Your task to perform on an android device: Open Yahoo.com Image 0: 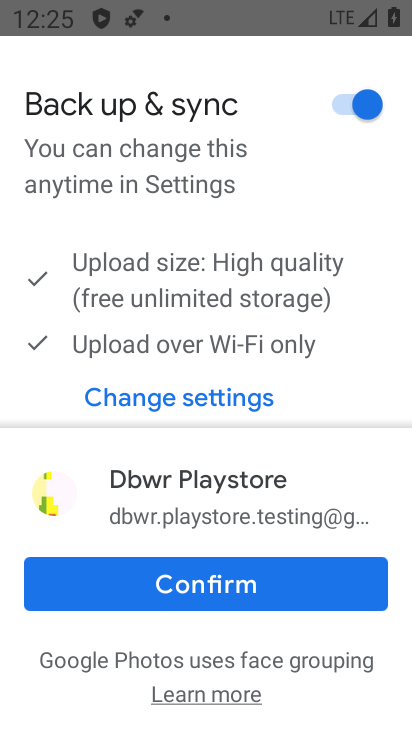
Step 0: press home button
Your task to perform on an android device: Open Yahoo.com Image 1: 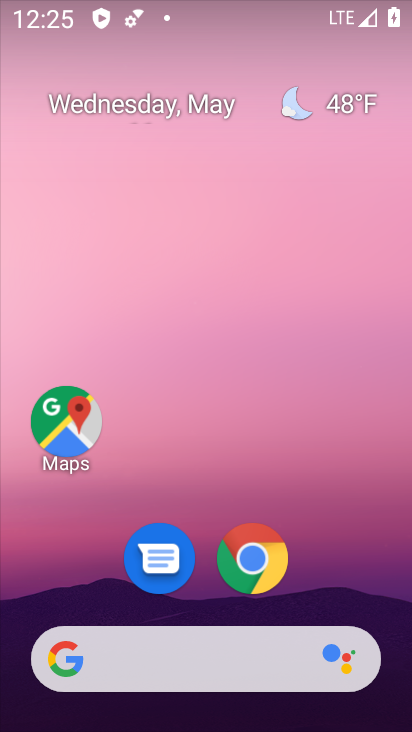
Step 1: press home button
Your task to perform on an android device: Open Yahoo.com Image 2: 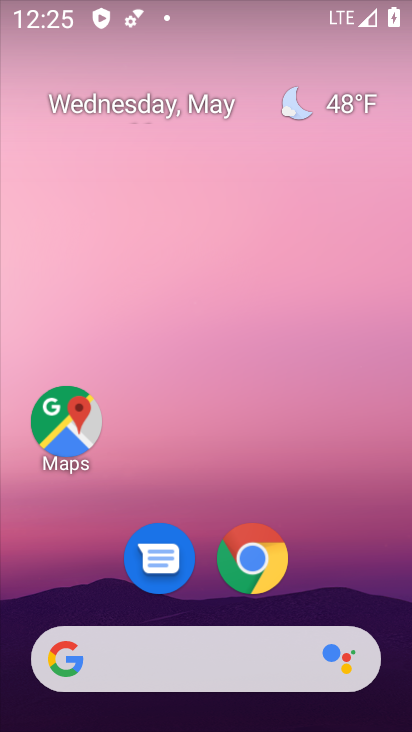
Step 2: click (279, 574)
Your task to perform on an android device: Open Yahoo.com Image 3: 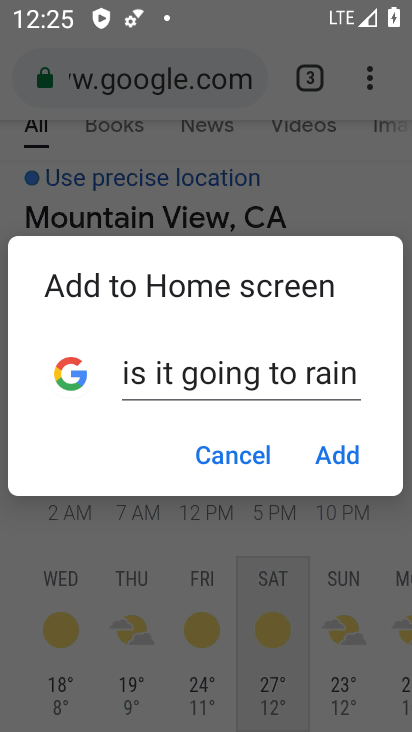
Step 3: click (217, 465)
Your task to perform on an android device: Open Yahoo.com Image 4: 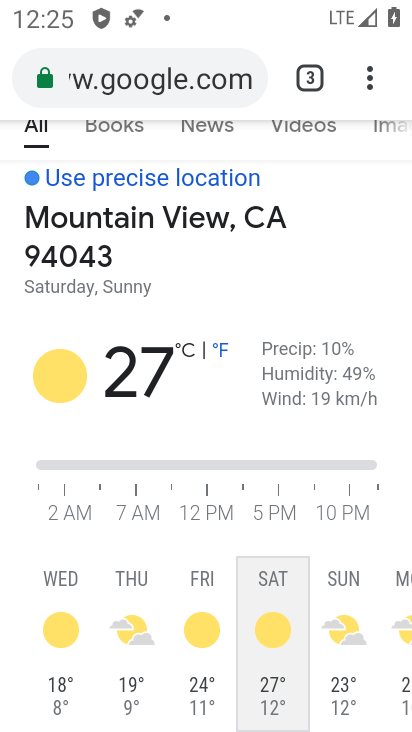
Step 4: click (175, 68)
Your task to perform on an android device: Open Yahoo.com Image 5: 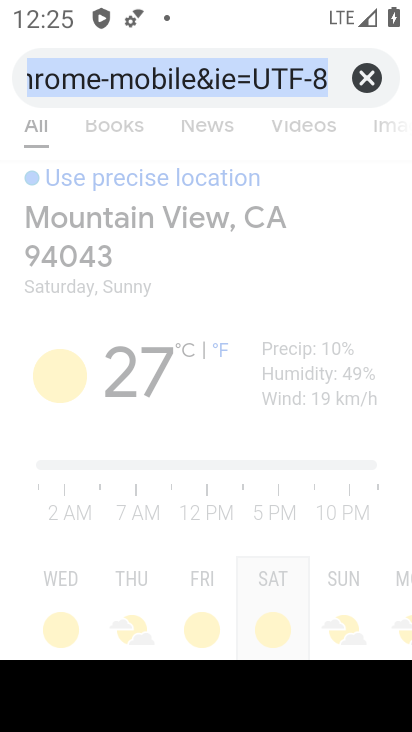
Step 5: click (365, 79)
Your task to perform on an android device: Open Yahoo.com Image 6: 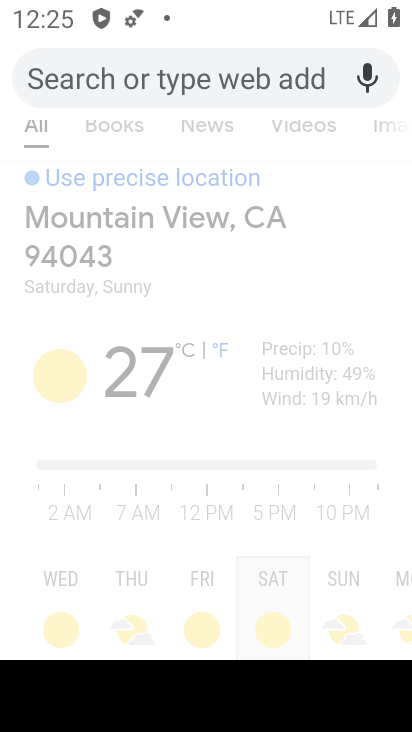
Step 6: type "yahoo.com"
Your task to perform on an android device: Open Yahoo.com Image 7: 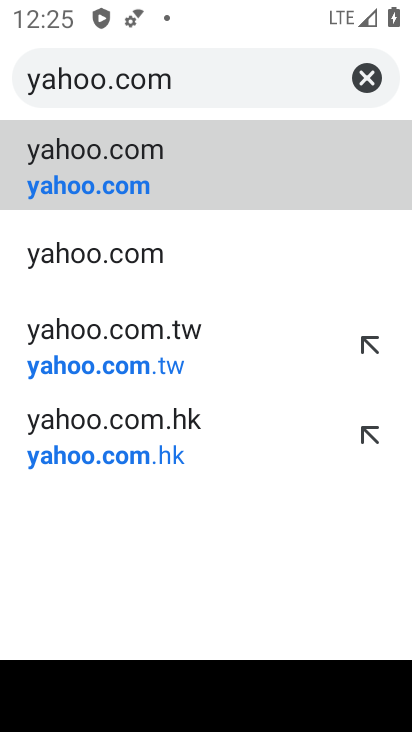
Step 7: click (88, 167)
Your task to perform on an android device: Open Yahoo.com Image 8: 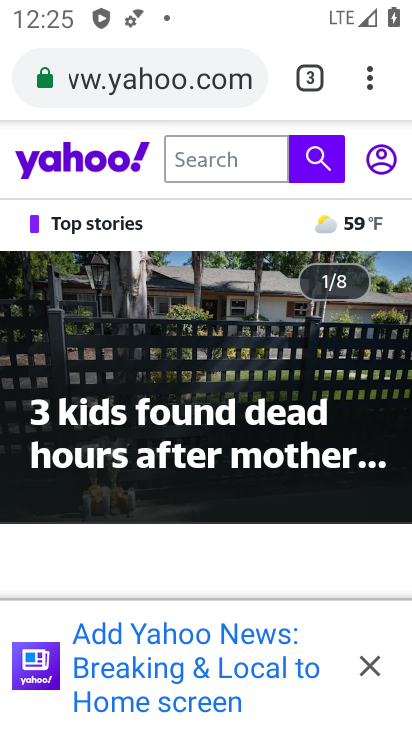
Step 8: task complete